Your task to perform on an android device: Open Google Chrome Image 0: 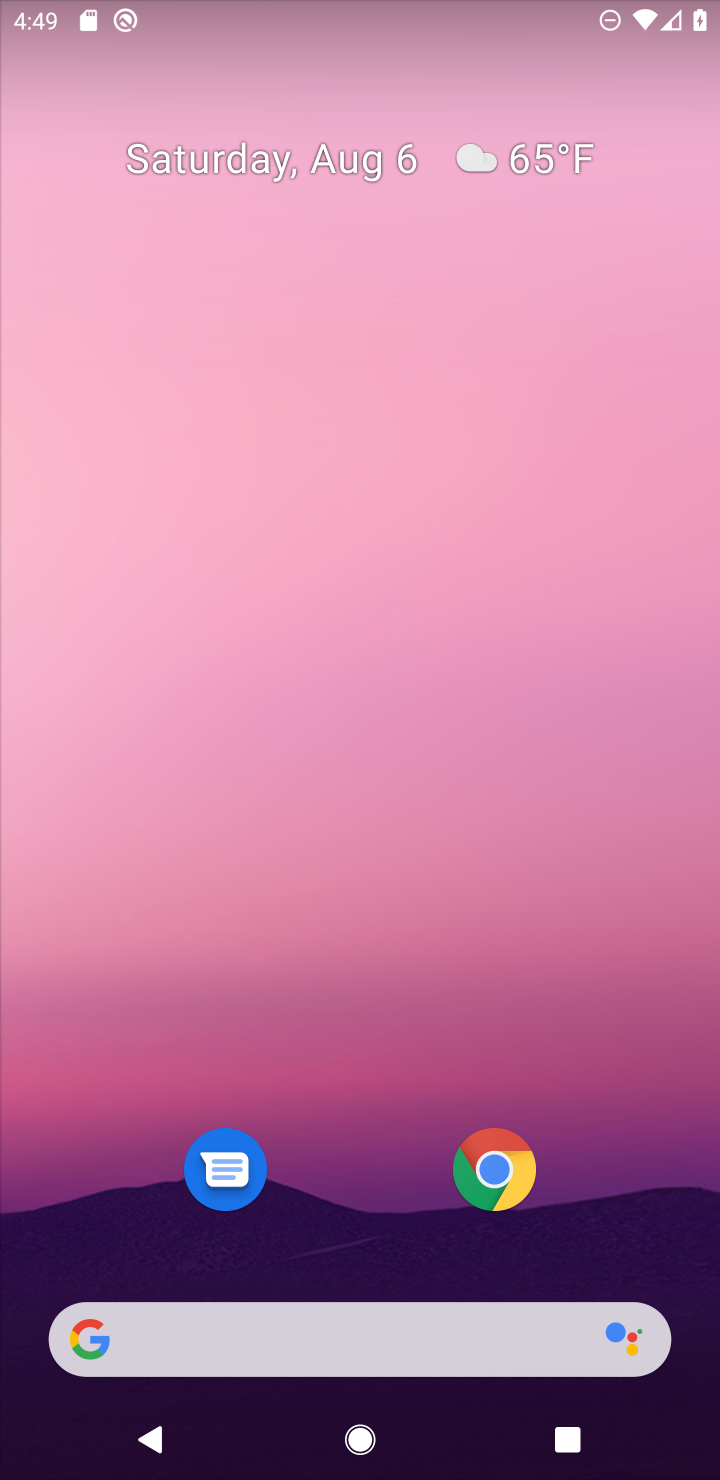
Step 0: click (487, 1163)
Your task to perform on an android device: Open Google Chrome Image 1: 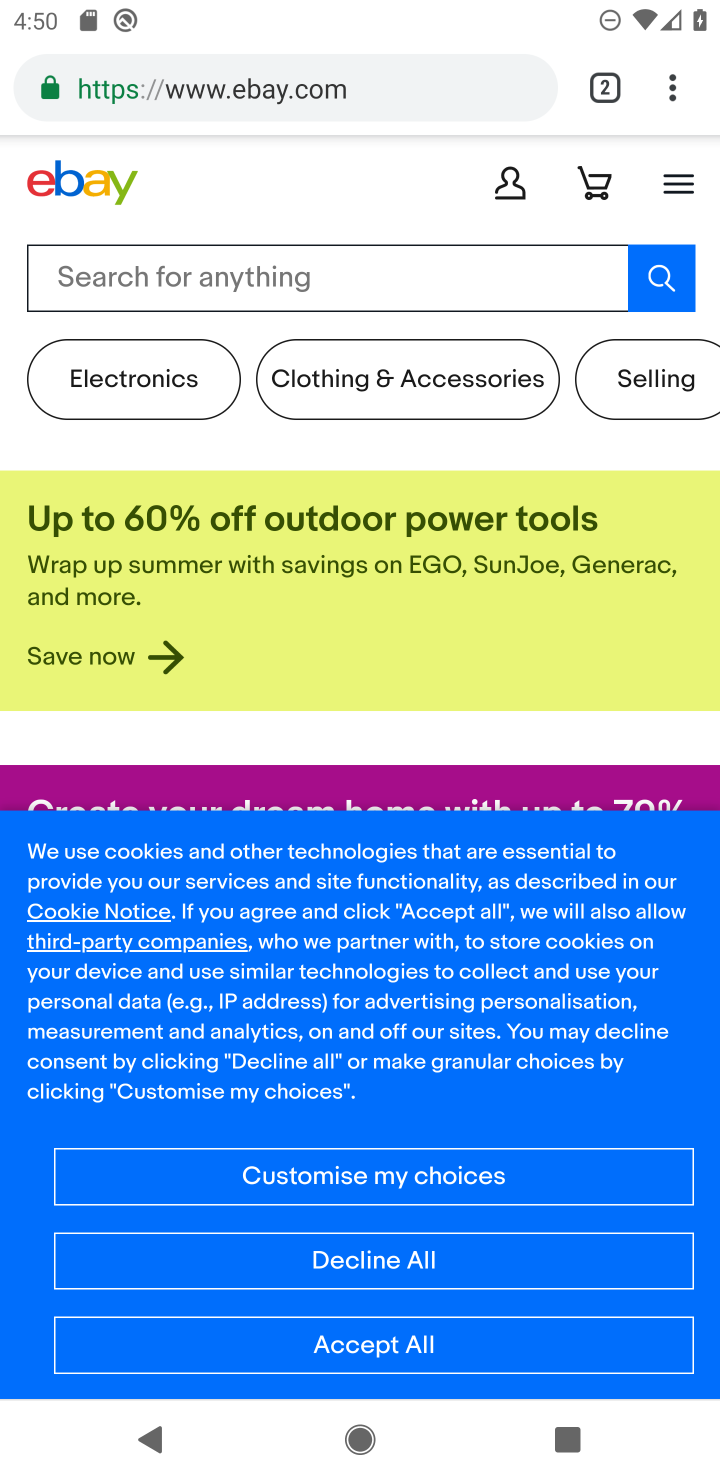
Step 1: task complete